Your task to perform on an android device: Open sound settings Image 0: 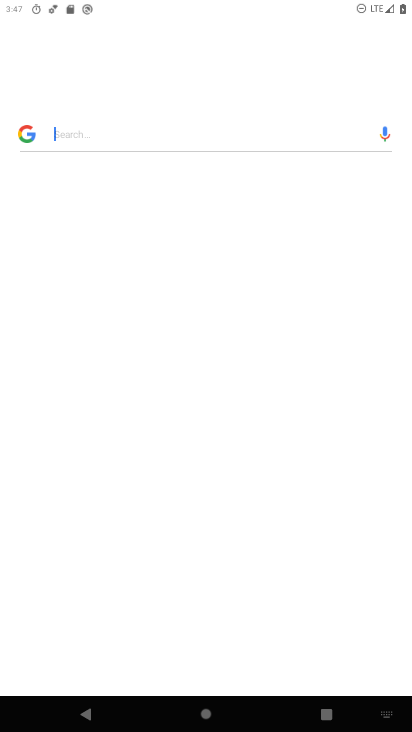
Step 0: drag from (239, 581) to (174, 139)
Your task to perform on an android device: Open sound settings Image 1: 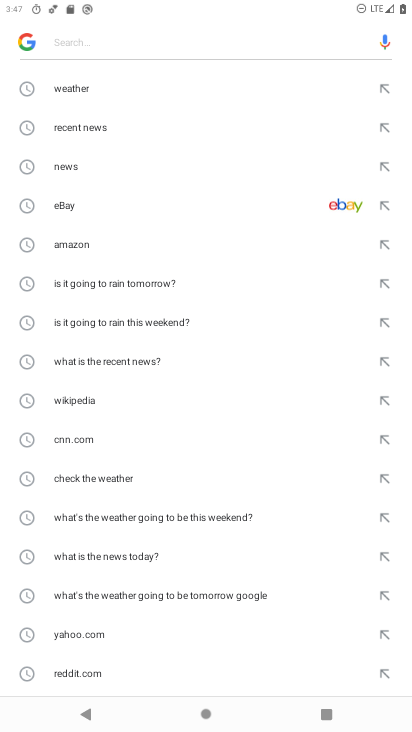
Step 1: press home button
Your task to perform on an android device: Open sound settings Image 2: 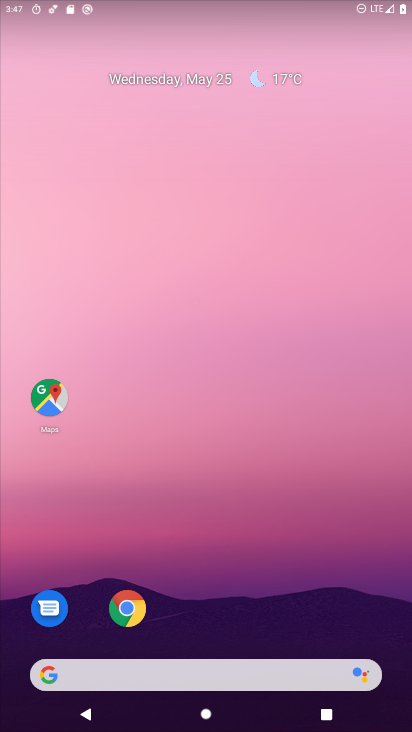
Step 2: drag from (273, 560) to (142, 204)
Your task to perform on an android device: Open sound settings Image 3: 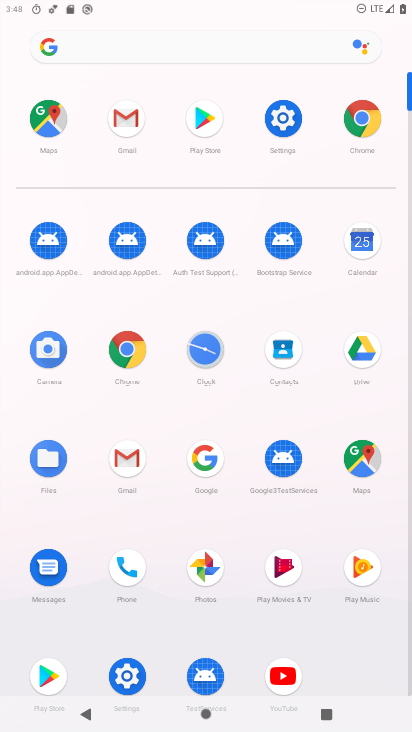
Step 3: click (285, 128)
Your task to perform on an android device: Open sound settings Image 4: 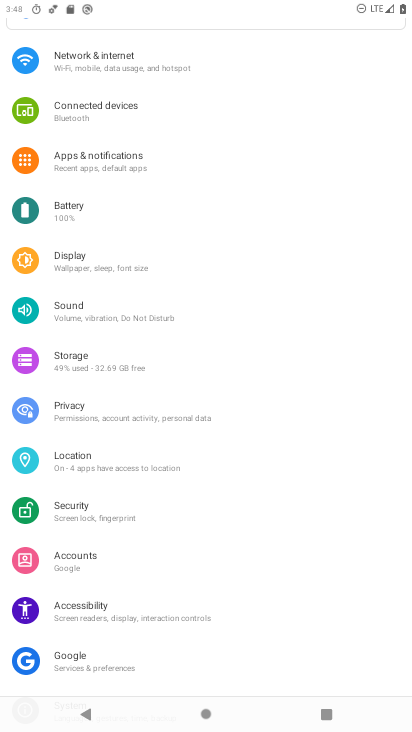
Step 4: click (94, 319)
Your task to perform on an android device: Open sound settings Image 5: 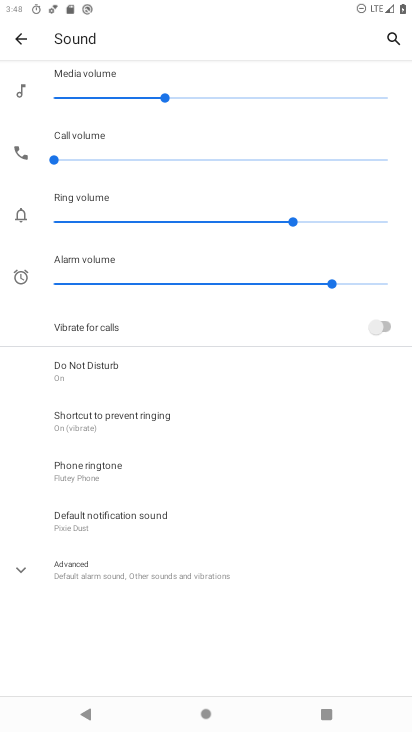
Step 5: task complete